Your task to perform on an android device: turn pop-ups on in chrome Image 0: 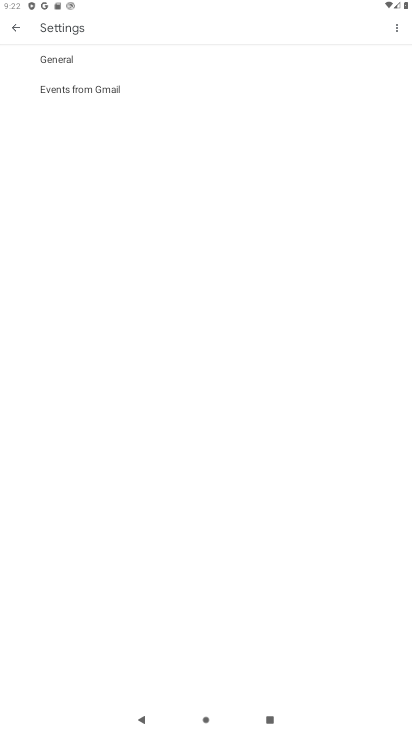
Step 0: press home button
Your task to perform on an android device: turn pop-ups on in chrome Image 1: 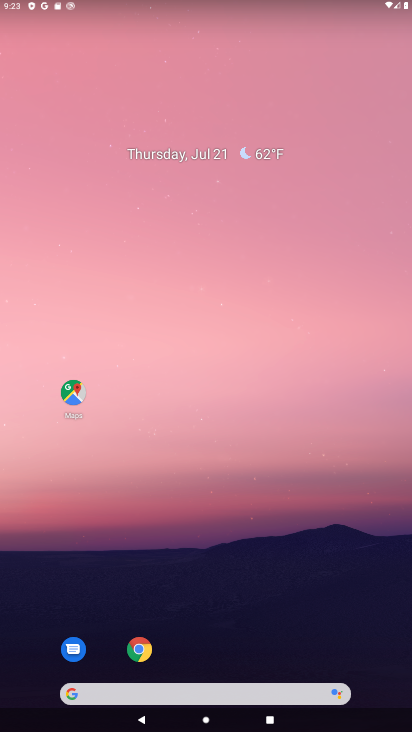
Step 1: click (141, 648)
Your task to perform on an android device: turn pop-ups on in chrome Image 2: 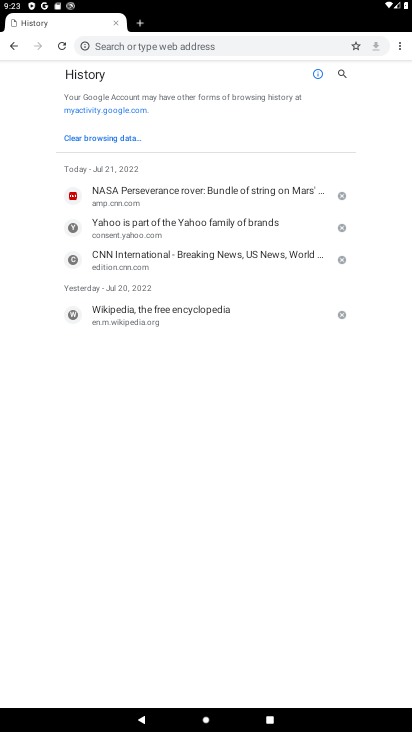
Step 2: click (402, 45)
Your task to perform on an android device: turn pop-ups on in chrome Image 3: 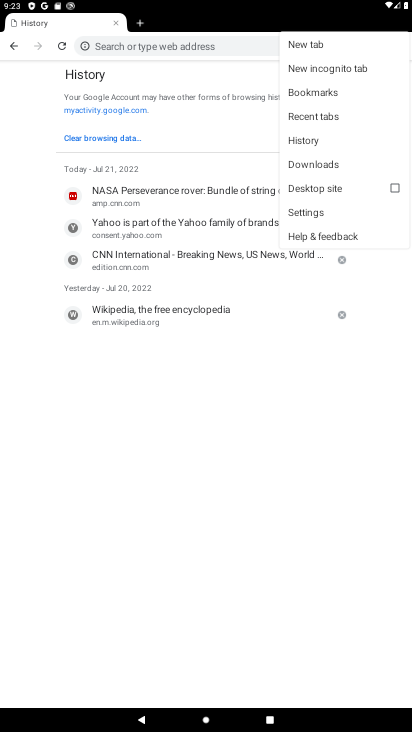
Step 3: click (317, 214)
Your task to perform on an android device: turn pop-ups on in chrome Image 4: 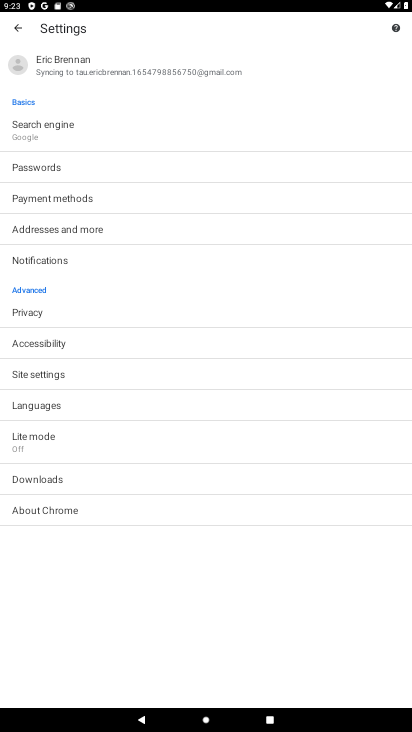
Step 4: click (36, 372)
Your task to perform on an android device: turn pop-ups on in chrome Image 5: 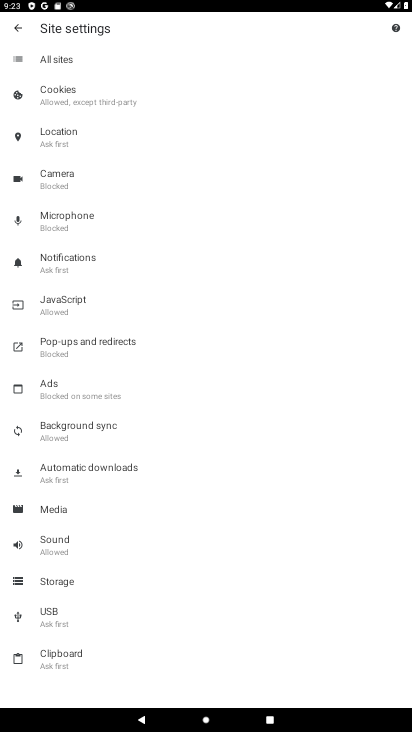
Step 5: click (76, 349)
Your task to perform on an android device: turn pop-ups on in chrome Image 6: 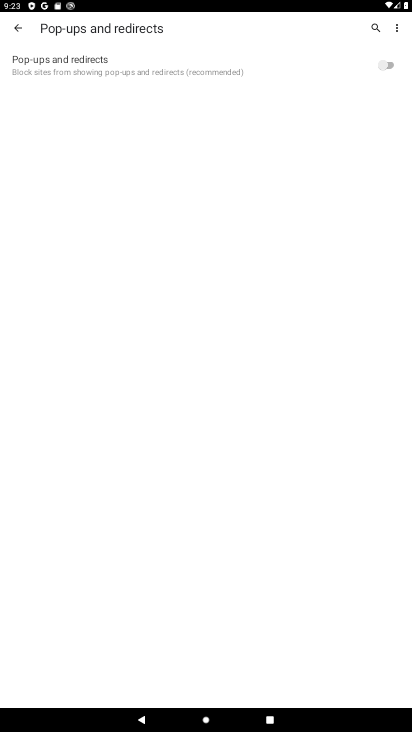
Step 6: click (387, 67)
Your task to perform on an android device: turn pop-ups on in chrome Image 7: 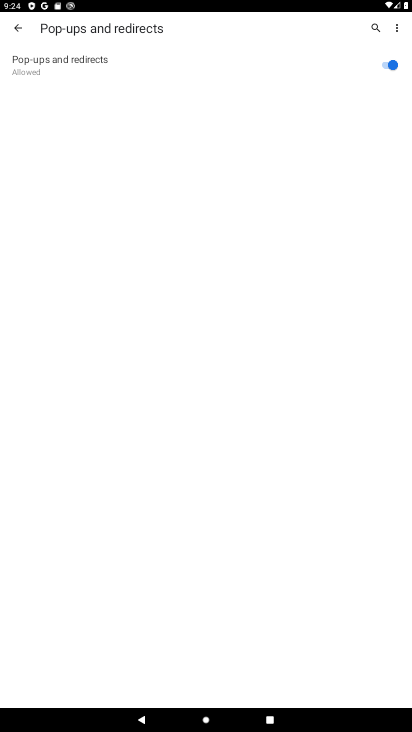
Step 7: task complete